Your task to perform on an android device: turn on javascript in the chrome app Image 0: 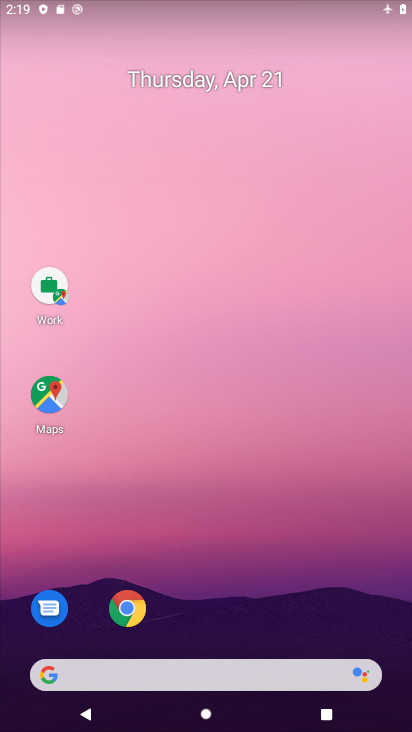
Step 0: click (120, 619)
Your task to perform on an android device: turn on javascript in the chrome app Image 1: 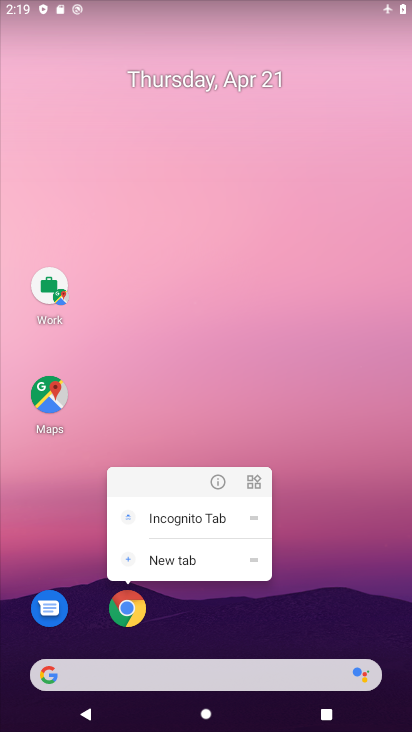
Step 1: click (143, 633)
Your task to perform on an android device: turn on javascript in the chrome app Image 2: 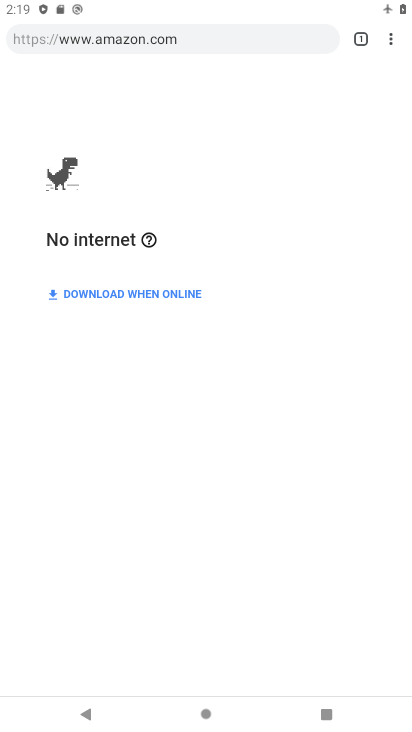
Step 2: click (397, 36)
Your task to perform on an android device: turn on javascript in the chrome app Image 3: 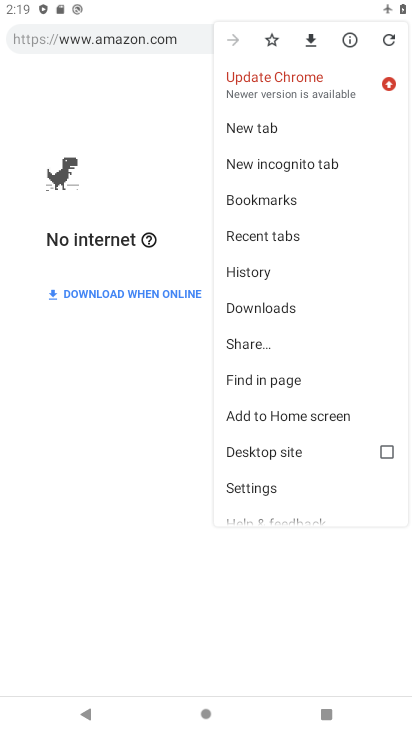
Step 3: click (267, 492)
Your task to perform on an android device: turn on javascript in the chrome app Image 4: 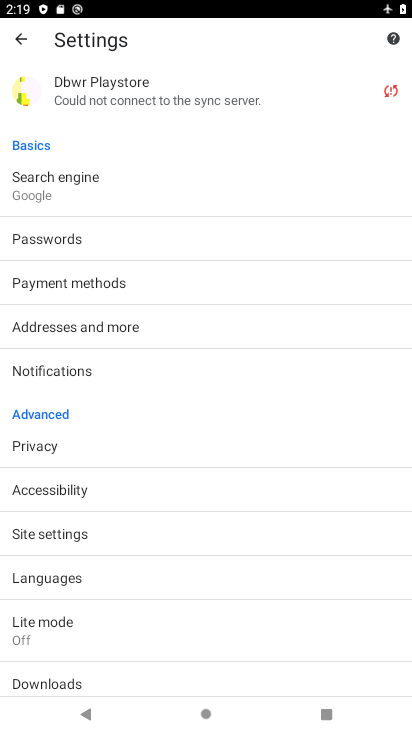
Step 4: click (85, 543)
Your task to perform on an android device: turn on javascript in the chrome app Image 5: 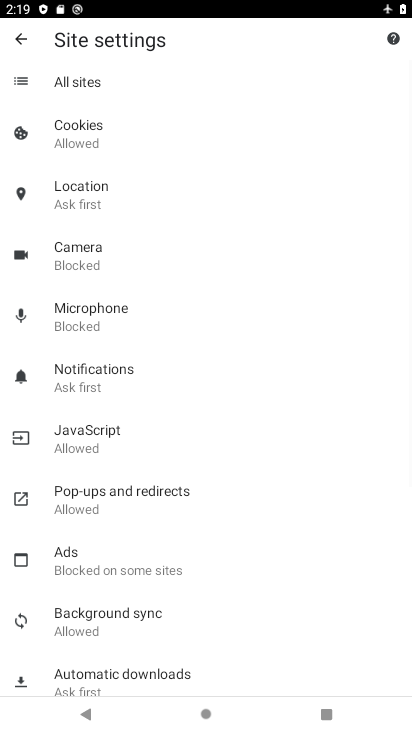
Step 5: click (68, 443)
Your task to perform on an android device: turn on javascript in the chrome app Image 6: 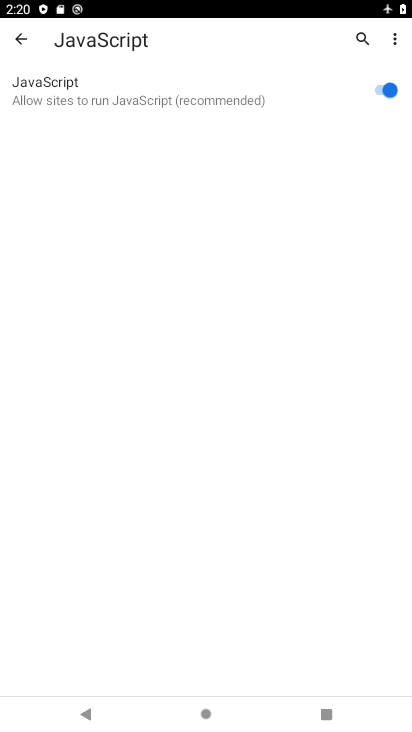
Step 6: task complete